Your task to perform on an android device: Open the Play Movies app and select the watchlist tab. Image 0: 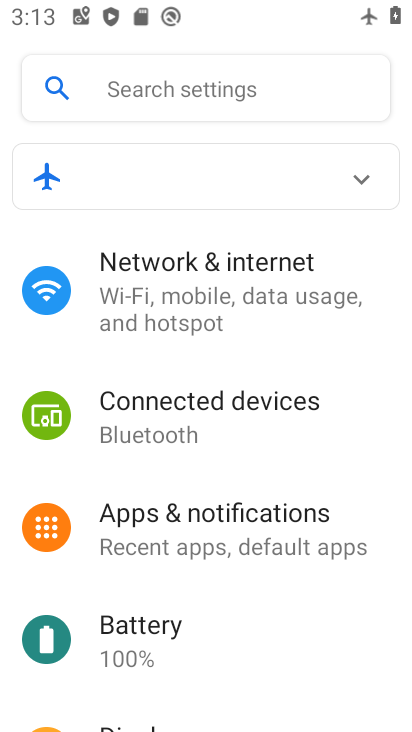
Step 0: press home button
Your task to perform on an android device: Open the Play Movies app and select the watchlist tab. Image 1: 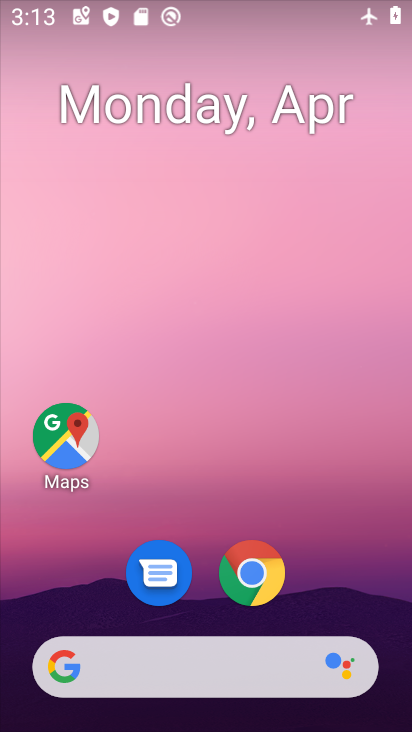
Step 1: drag from (374, 457) to (371, 92)
Your task to perform on an android device: Open the Play Movies app and select the watchlist tab. Image 2: 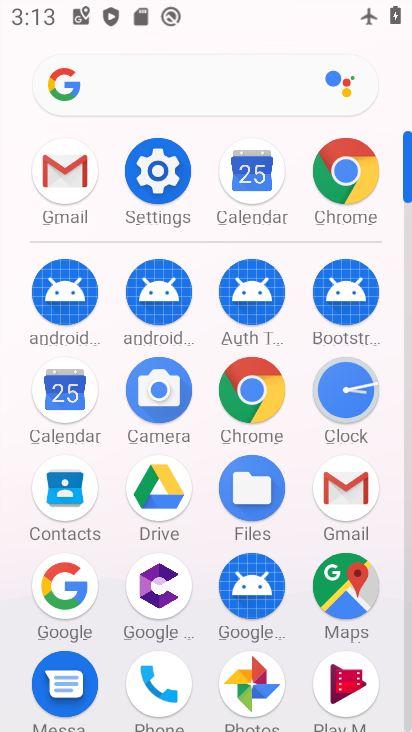
Step 2: drag from (197, 544) to (202, 280)
Your task to perform on an android device: Open the Play Movies app and select the watchlist tab. Image 3: 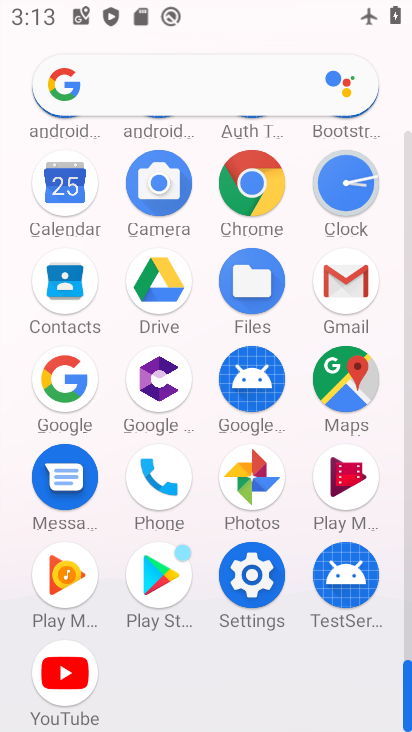
Step 3: click (345, 470)
Your task to perform on an android device: Open the Play Movies app and select the watchlist tab. Image 4: 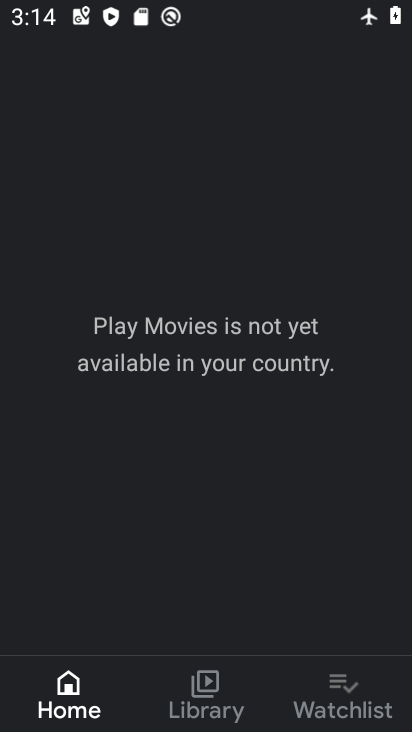
Step 4: click (338, 676)
Your task to perform on an android device: Open the Play Movies app and select the watchlist tab. Image 5: 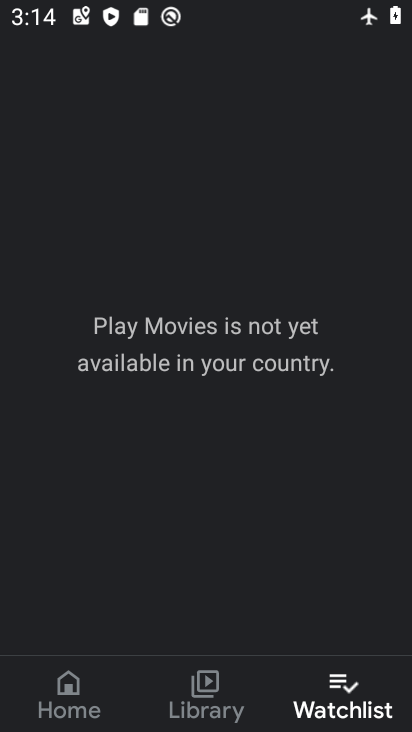
Step 5: task complete